Your task to perform on an android device: Do I have any events today? Image 0: 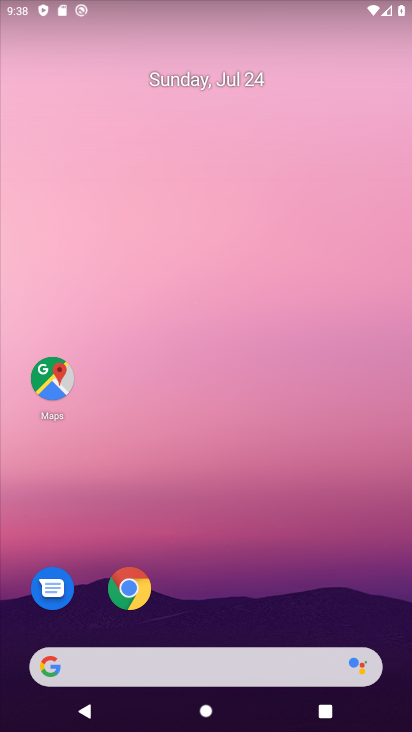
Step 0: drag from (232, 542) to (189, 119)
Your task to perform on an android device: Do I have any events today? Image 1: 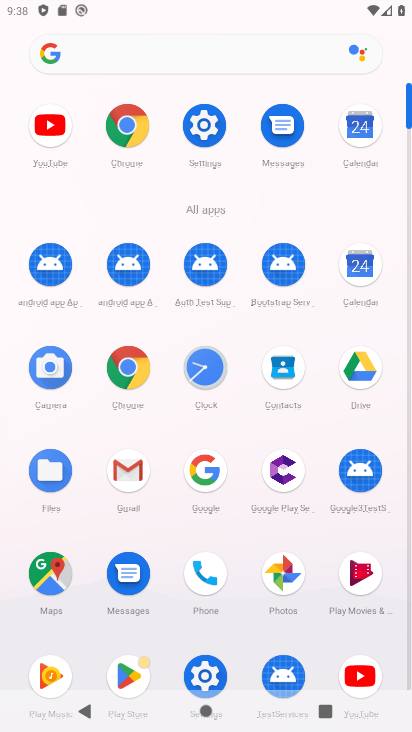
Step 1: click (345, 265)
Your task to perform on an android device: Do I have any events today? Image 2: 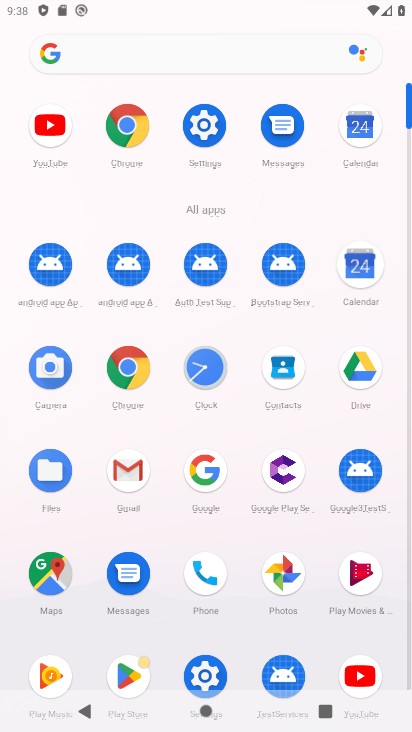
Step 2: click (351, 267)
Your task to perform on an android device: Do I have any events today? Image 3: 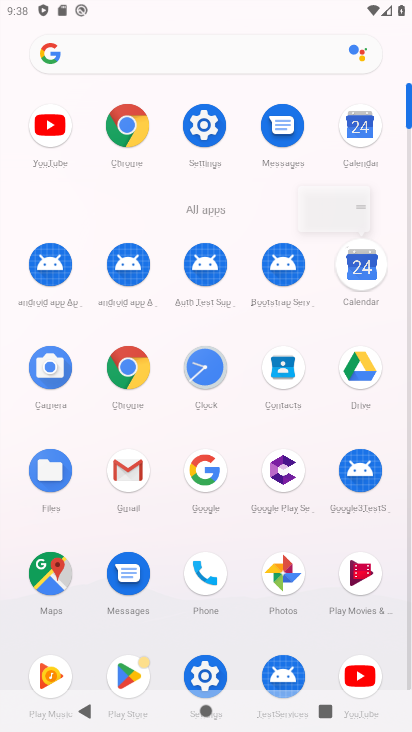
Step 3: click (363, 266)
Your task to perform on an android device: Do I have any events today? Image 4: 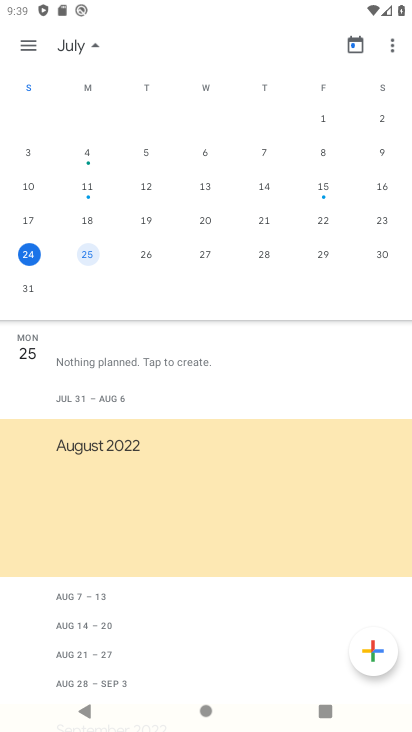
Step 4: click (96, 252)
Your task to perform on an android device: Do I have any events today? Image 5: 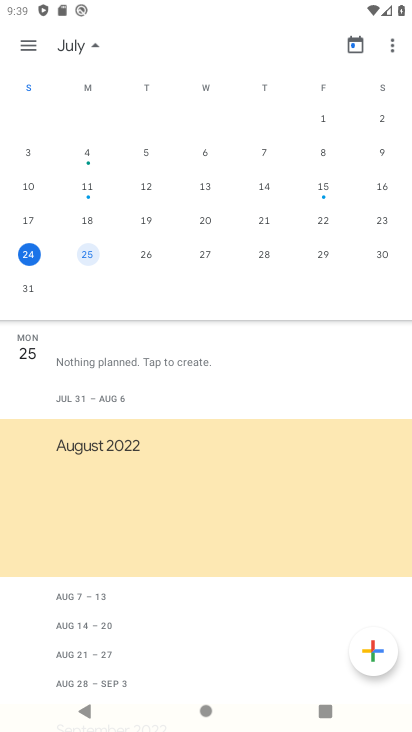
Step 5: click (95, 246)
Your task to perform on an android device: Do I have any events today? Image 6: 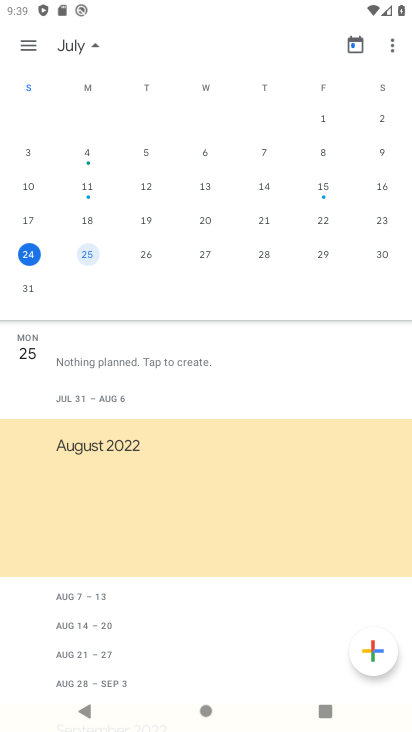
Step 6: click (95, 246)
Your task to perform on an android device: Do I have any events today? Image 7: 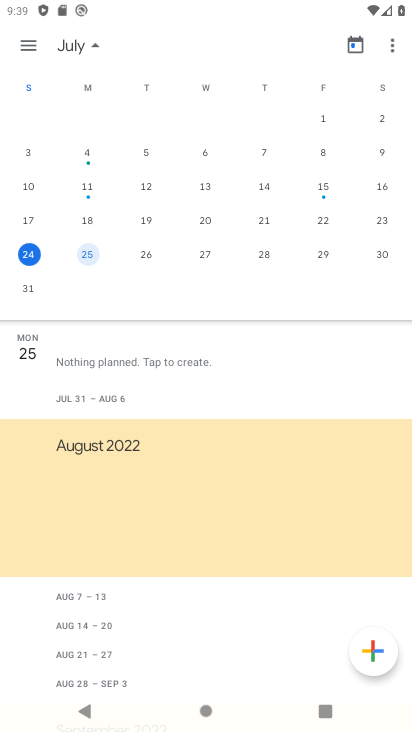
Step 7: click (95, 246)
Your task to perform on an android device: Do I have any events today? Image 8: 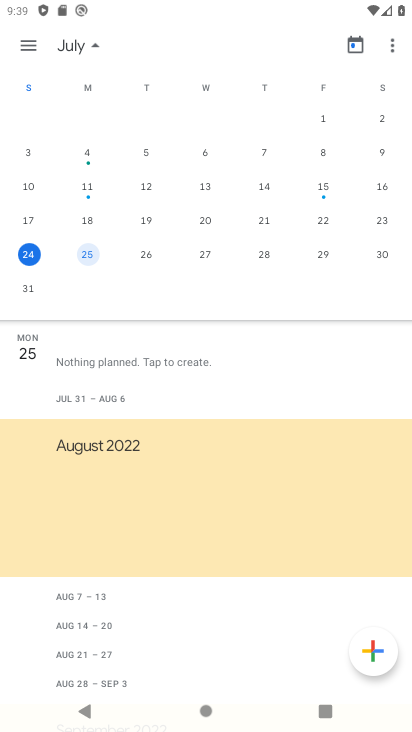
Step 8: press back button
Your task to perform on an android device: Do I have any events today? Image 9: 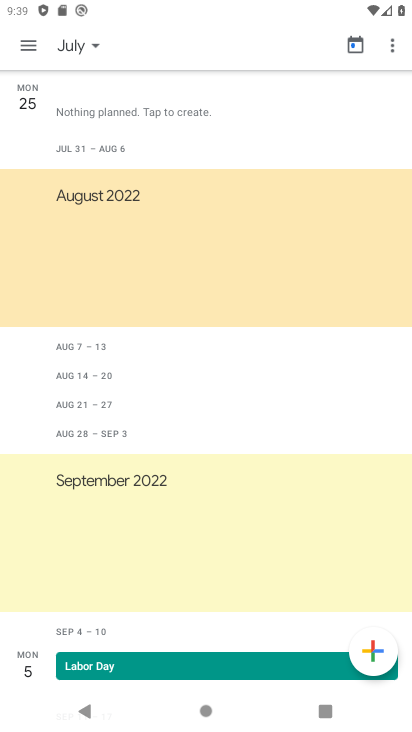
Step 9: click (102, 51)
Your task to perform on an android device: Do I have any events today? Image 10: 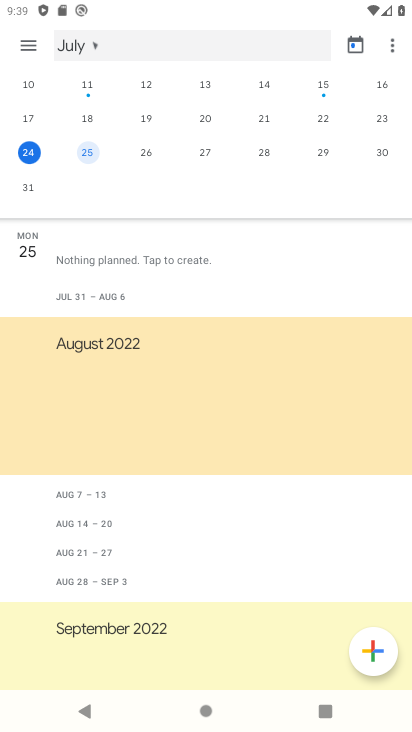
Step 10: click (106, 56)
Your task to perform on an android device: Do I have any events today? Image 11: 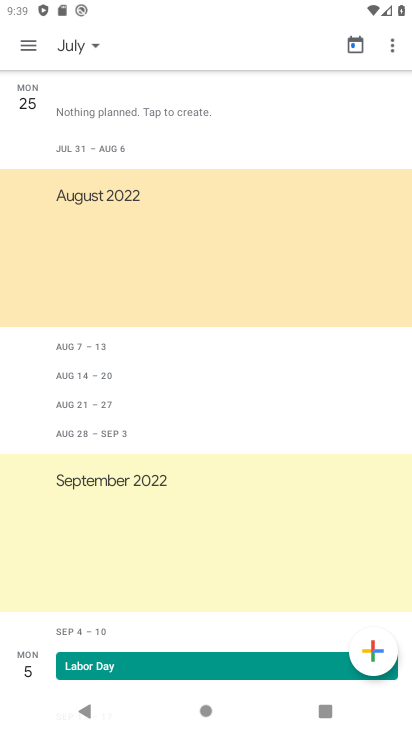
Step 11: click (97, 48)
Your task to perform on an android device: Do I have any events today? Image 12: 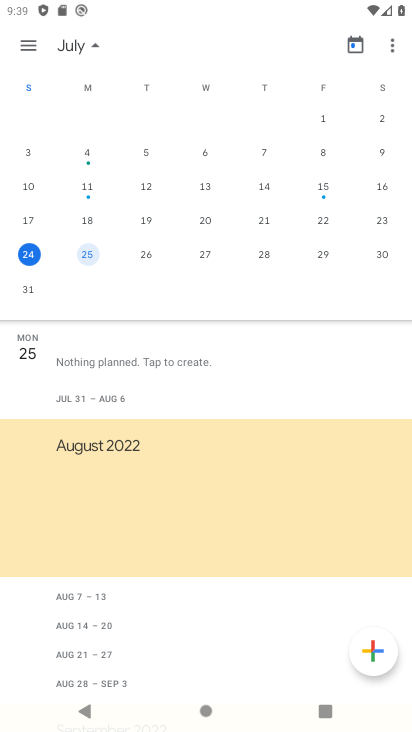
Step 12: click (87, 252)
Your task to perform on an android device: Do I have any events today? Image 13: 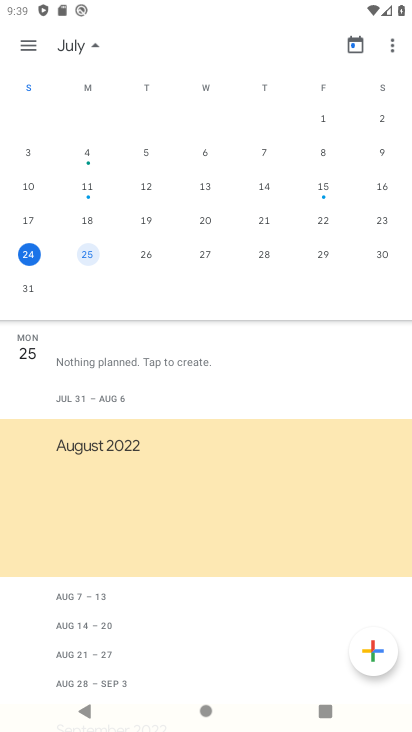
Step 13: click (86, 252)
Your task to perform on an android device: Do I have any events today? Image 14: 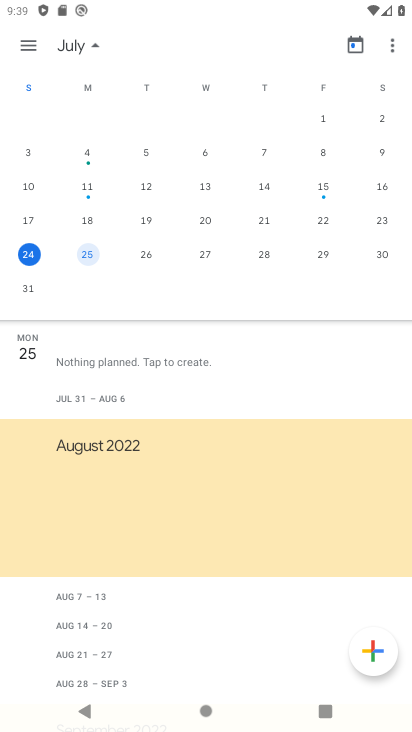
Step 14: click (89, 252)
Your task to perform on an android device: Do I have any events today? Image 15: 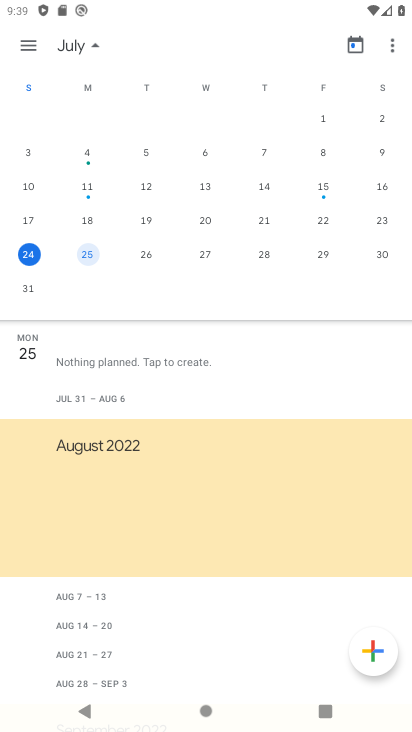
Step 15: click (93, 251)
Your task to perform on an android device: Do I have any events today? Image 16: 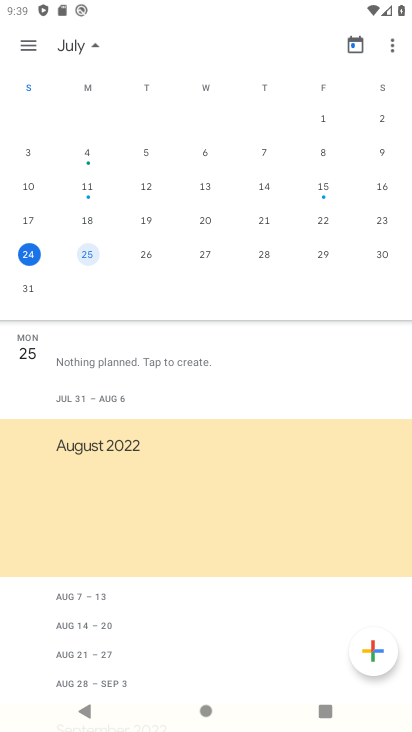
Step 16: click (102, 253)
Your task to perform on an android device: Do I have any events today? Image 17: 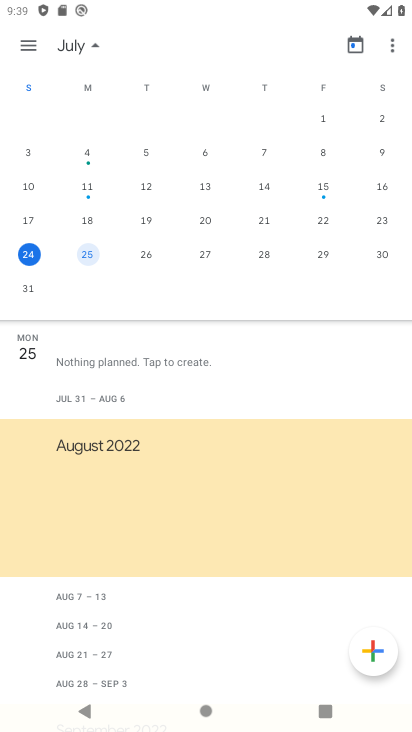
Step 17: task complete